Your task to perform on an android device: open the mobile data screen to see how much data has been used Image 0: 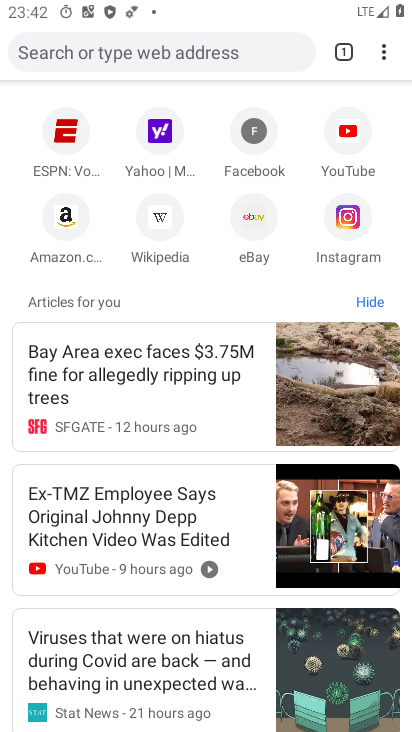
Step 0: press home button
Your task to perform on an android device: open the mobile data screen to see how much data has been used Image 1: 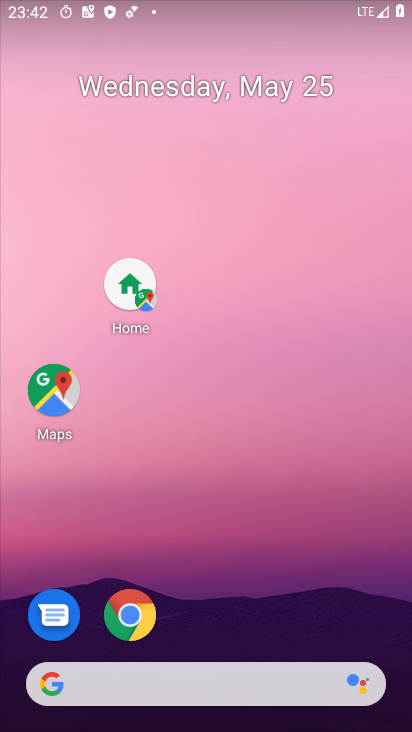
Step 1: drag from (219, 617) to (230, 81)
Your task to perform on an android device: open the mobile data screen to see how much data has been used Image 2: 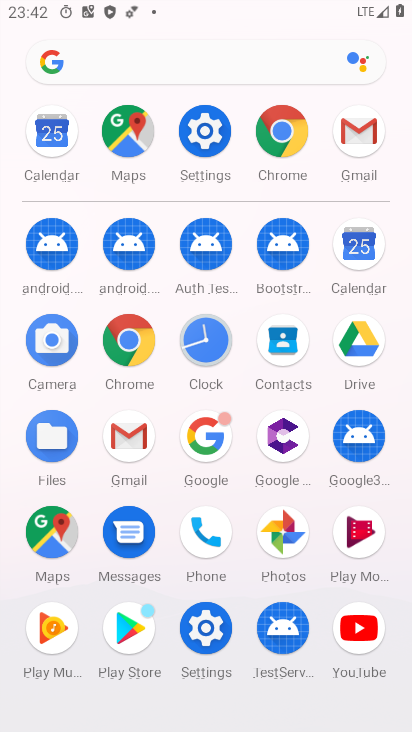
Step 2: click (205, 136)
Your task to perform on an android device: open the mobile data screen to see how much data has been used Image 3: 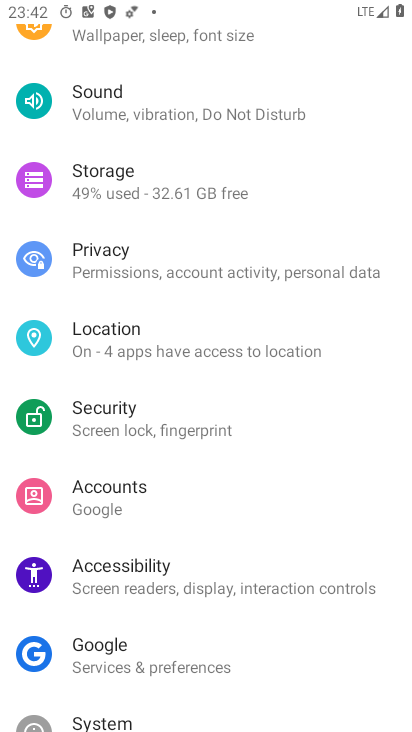
Step 3: drag from (206, 97) to (213, 589)
Your task to perform on an android device: open the mobile data screen to see how much data has been used Image 4: 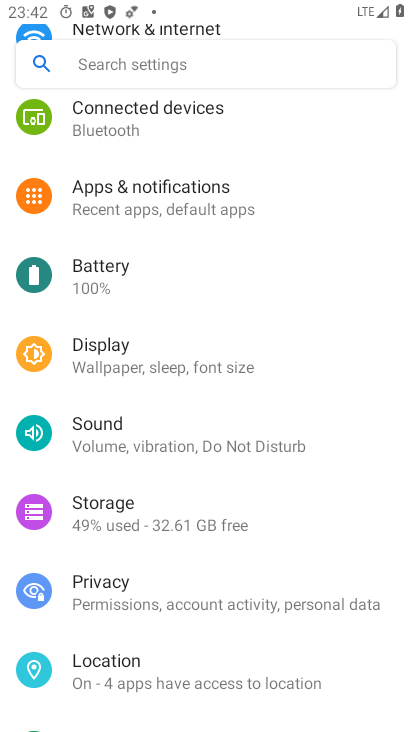
Step 4: drag from (195, 151) to (195, 577)
Your task to perform on an android device: open the mobile data screen to see how much data has been used Image 5: 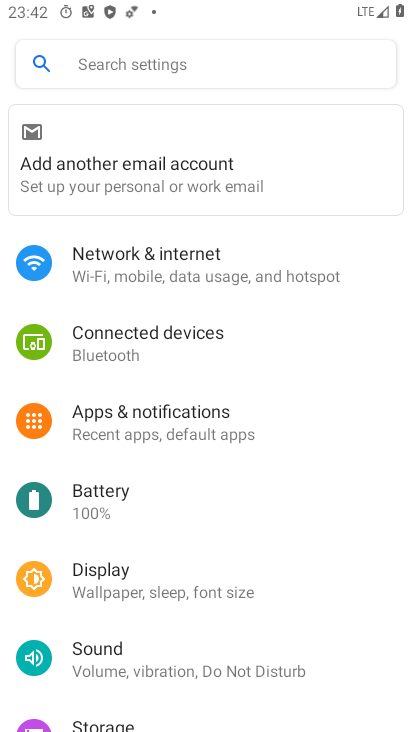
Step 5: click (148, 270)
Your task to perform on an android device: open the mobile data screen to see how much data has been used Image 6: 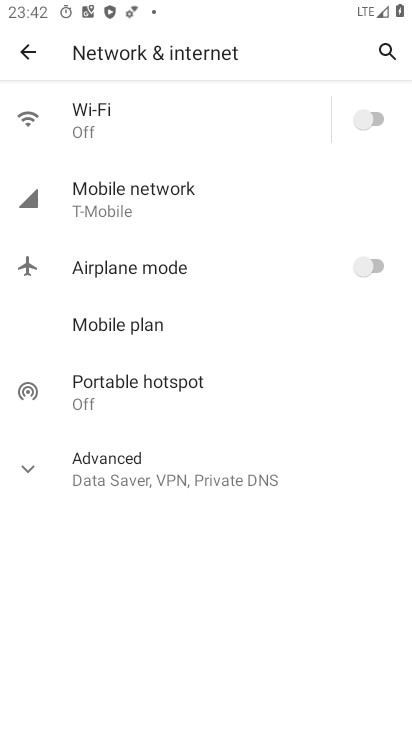
Step 6: click (107, 201)
Your task to perform on an android device: open the mobile data screen to see how much data has been used Image 7: 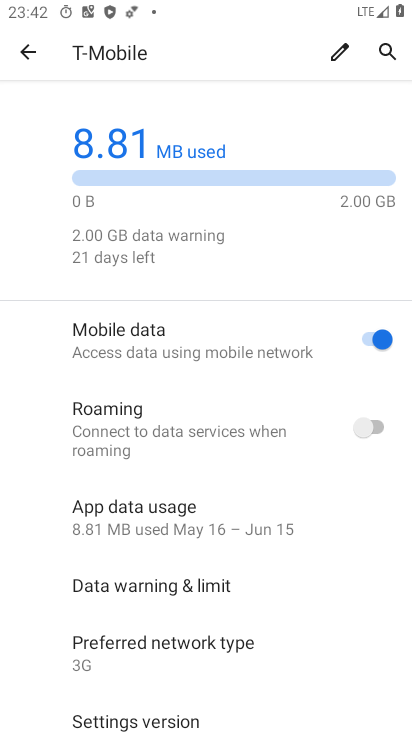
Step 7: click (153, 518)
Your task to perform on an android device: open the mobile data screen to see how much data has been used Image 8: 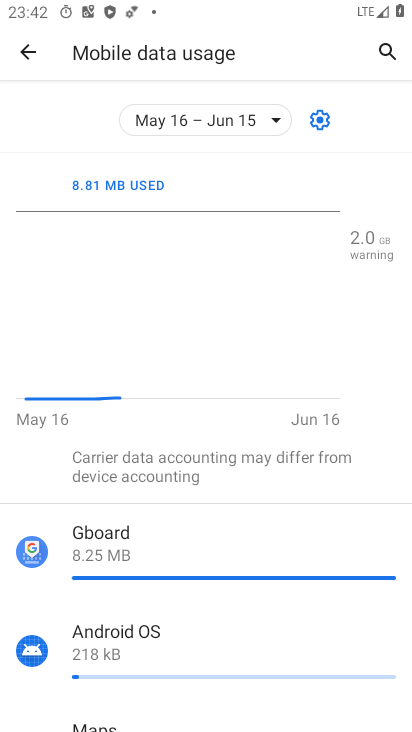
Step 8: task complete